Your task to perform on an android device: turn vacation reply on in the gmail app Image 0: 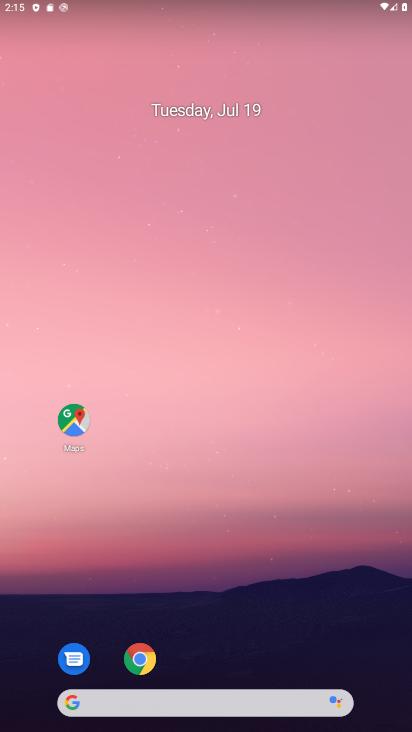
Step 0: drag from (349, 631) to (298, 101)
Your task to perform on an android device: turn vacation reply on in the gmail app Image 1: 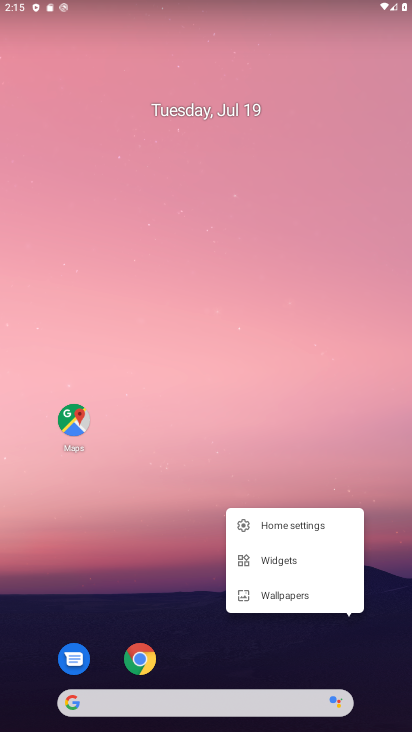
Step 1: drag from (214, 651) to (209, 194)
Your task to perform on an android device: turn vacation reply on in the gmail app Image 2: 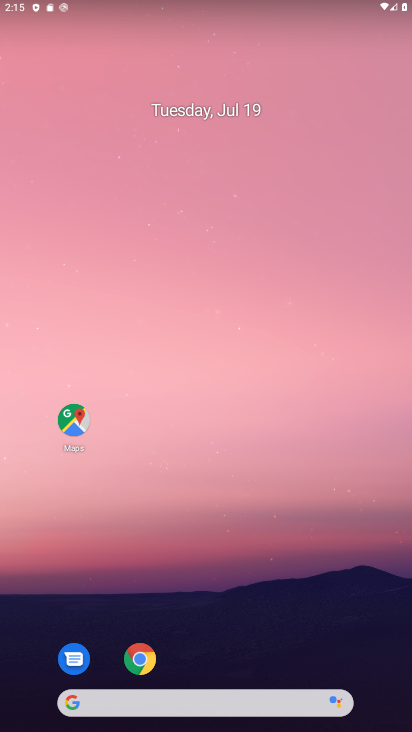
Step 2: drag from (231, 627) to (225, 194)
Your task to perform on an android device: turn vacation reply on in the gmail app Image 3: 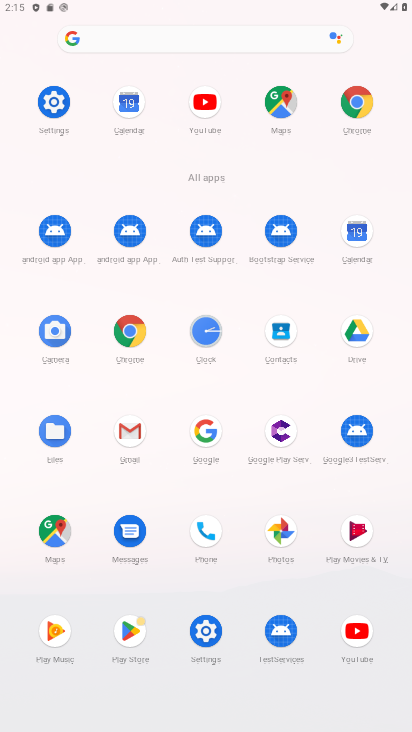
Step 3: click (128, 447)
Your task to perform on an android device: turn vacation reply on in the gmail app Image 4: 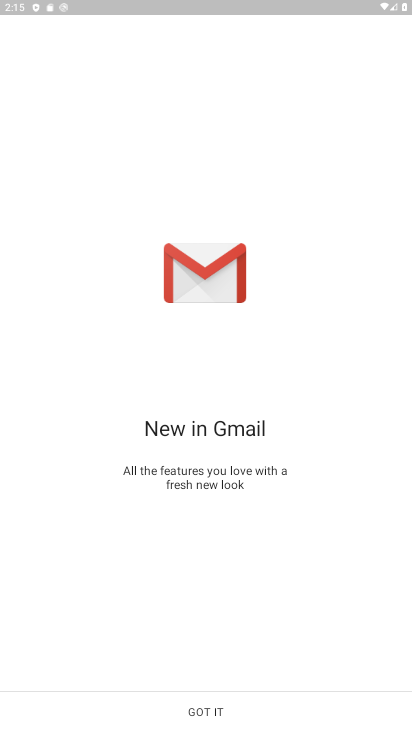
Step 4: click (211, 723)
Your task to perform on an android device: turn vacation reply on in the gmail app Image 5: 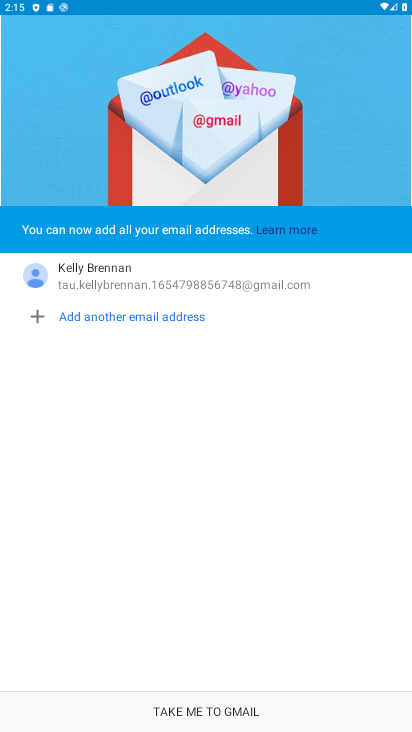
Step 5: click (222, 716)
Your task to perform on an android device: turn vacation reply on in the gmail app Image 6: 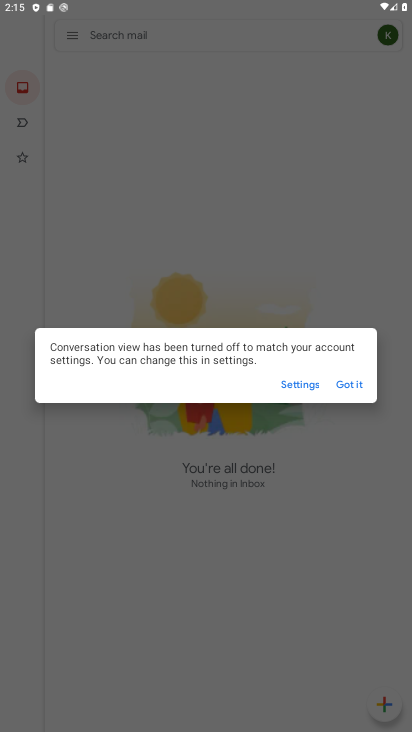
Step 6: click (344, 378)
Your task to perform on an android device: turn vacation reply on in the gmail app Image 7: 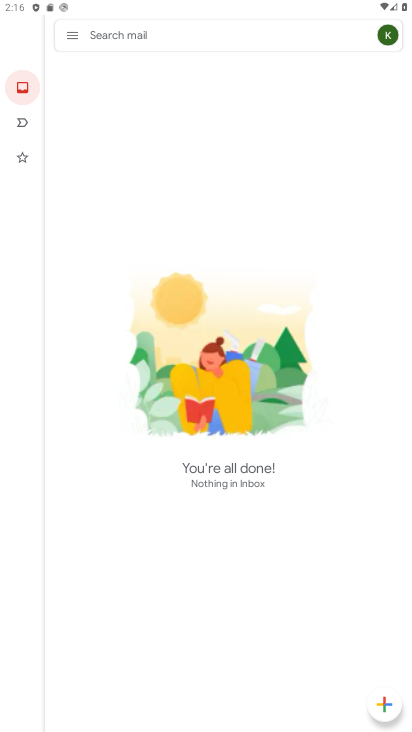
Step 7: click (66, 46)
Your task to perform on an android device: turn vacation reply on in the gmail app Image 8: 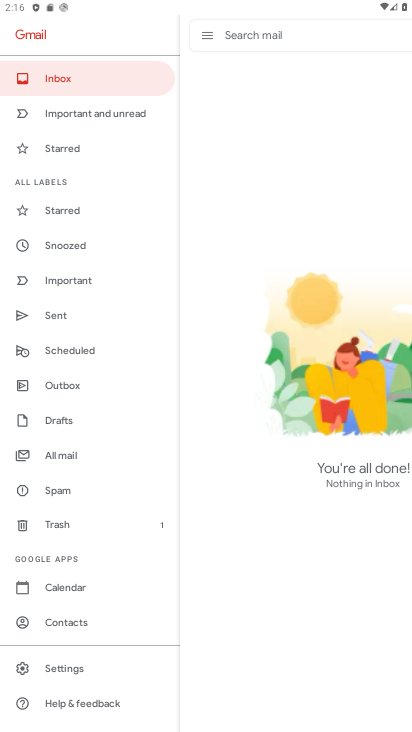
Step 8: click (66, 657)
Your task to perform on an android device: turn vacation reply on in the gmail app Image 9: 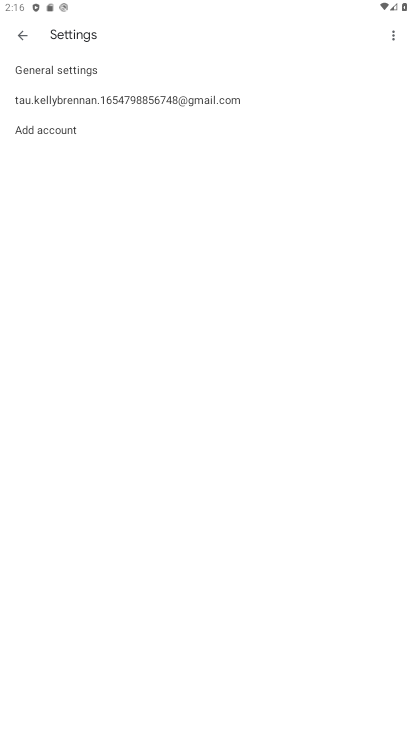
Step 9: click (161, 104)
Your task to perform on an android device: turn vacation reply on in the gmail app Image 10: 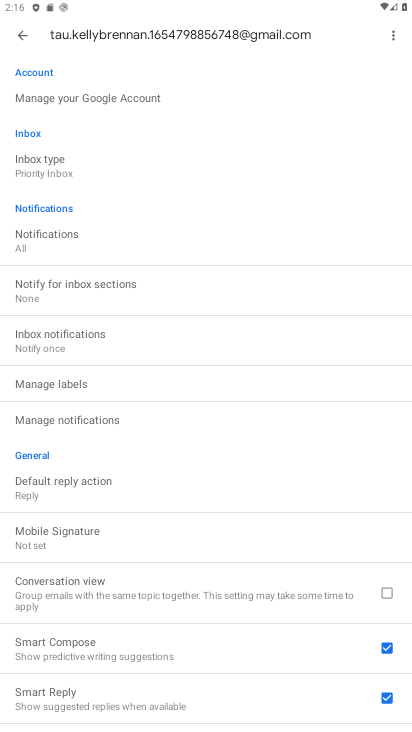
Step 10: drag from (144, 554) to (128, 249)
Your task to perform on an android device: turn vacation reply on in the gmail app Image 11: 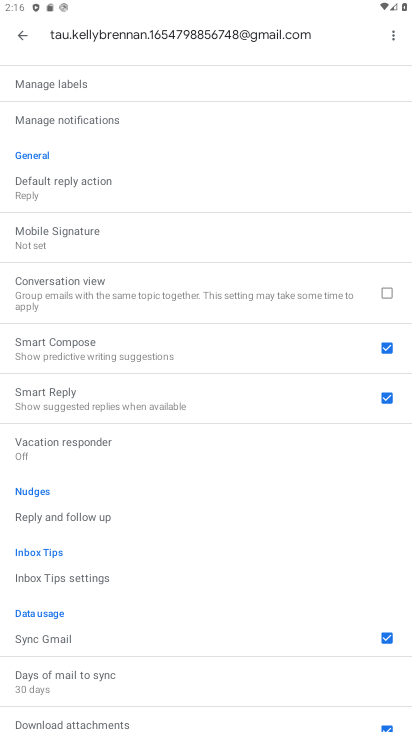
Step 11: click (142, 458)
Your task to perform on an android device: turn vacation reply on in the gmail app Image 12: 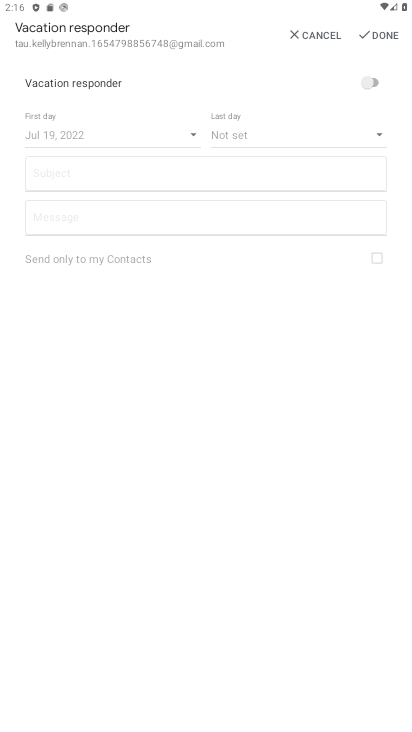
Step 12: click (375, 75)
Your task to perform on an android device: turn vacation reply on in the gmail app Image 13: 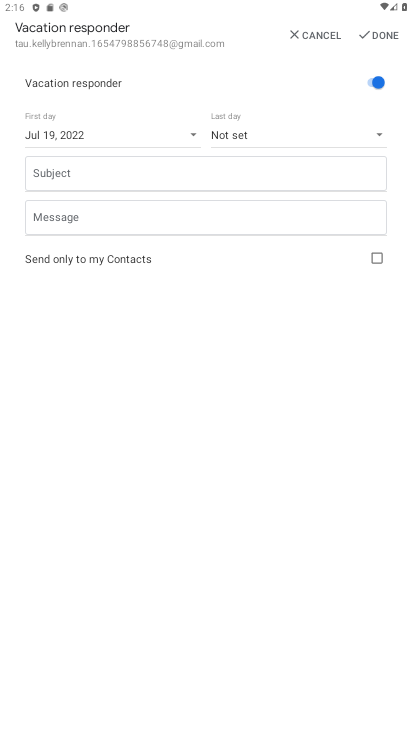
Step 13: click (340, 165)
Your task to perform on an android device: turn vacation reply on in the gmail app Image 14: 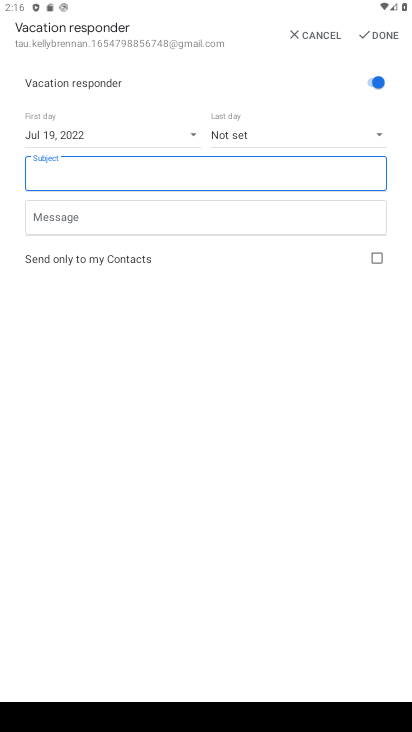
Step 14: type "bjhbjh"
Your task to perform on an android device: turn vacation reply on in the gmail app Image 15: 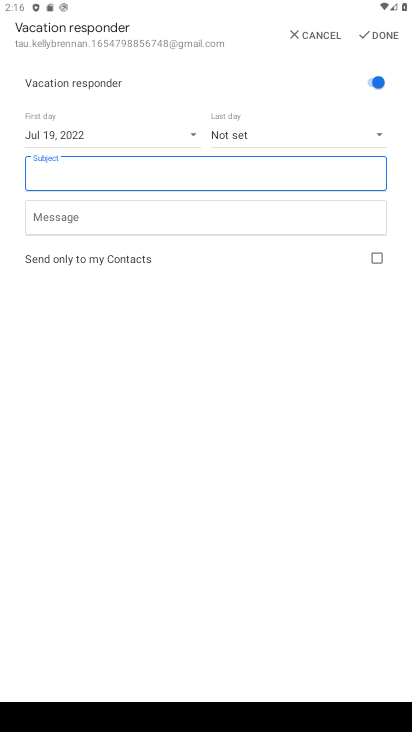
Step 15: click (383, 29)
Your task to perform on an android device: turn vacation reply on in the gmail app Image 16: 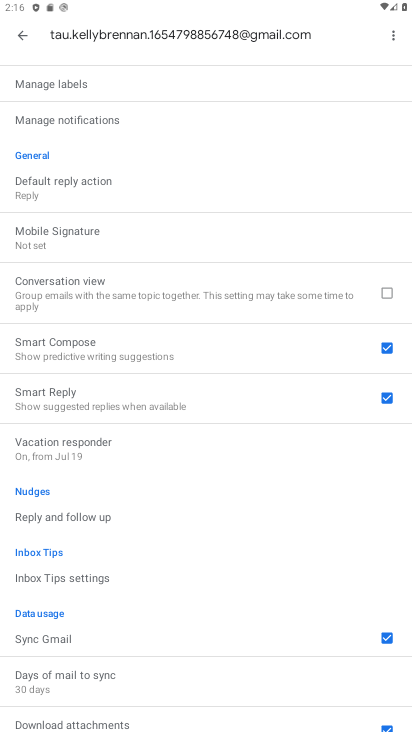
Step 16: task complete